Your task to perform on an android device: Open notification settings Image 0: 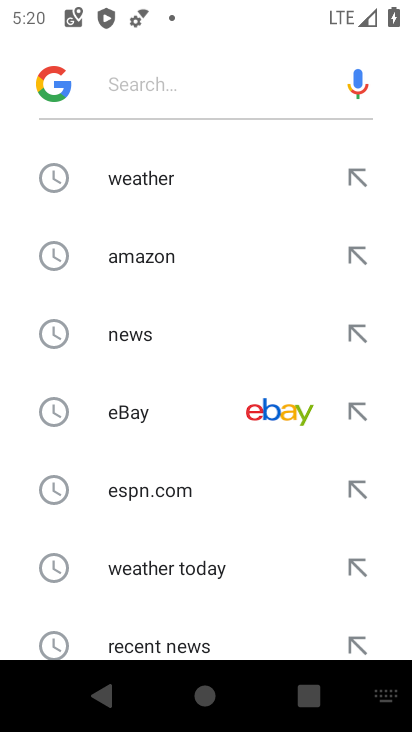
Step 0: press home button
Your task to perform on an android device: Open notification settings Image 1: 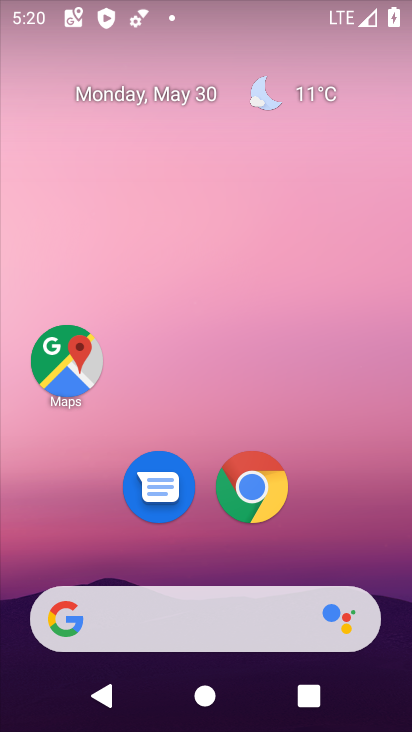
Step 1: drag from (410, 640) to (296, 102)
Your task to perform on an android device: Open notification settings Image 2: 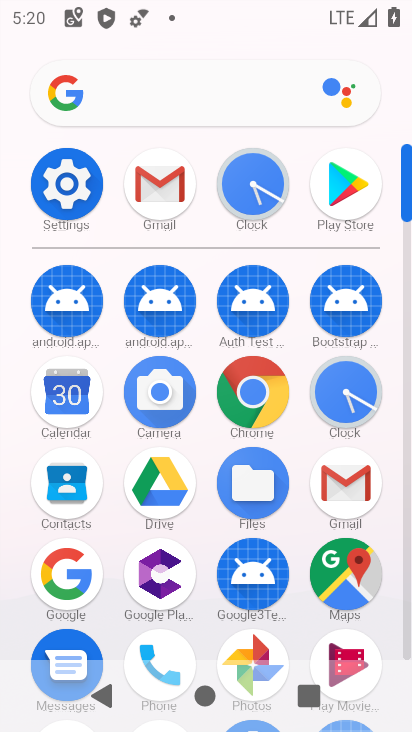
Step 2: click (407, 633)
Your task to perform on an android device: Open notification settings Image 3: 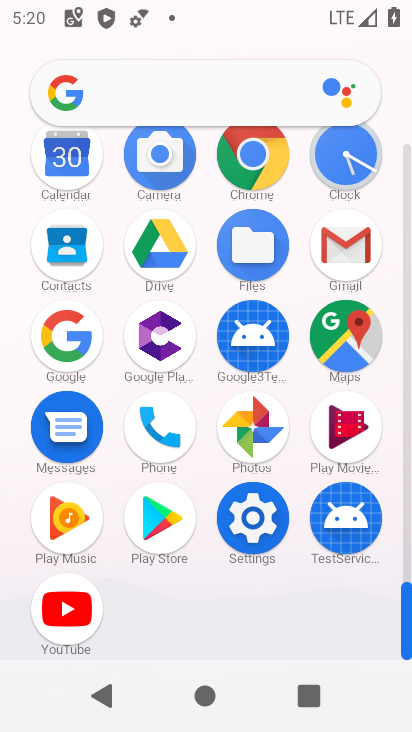
Step 3: click (255, 515)
Your task to perform on an android device: Open notification settings Image 4: 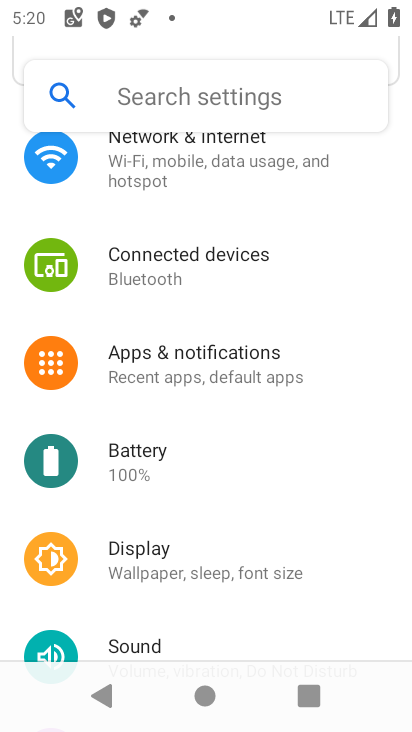
Step 4: click (194, 376)
Your task to perform on an android device: Open notification settings Image 5: 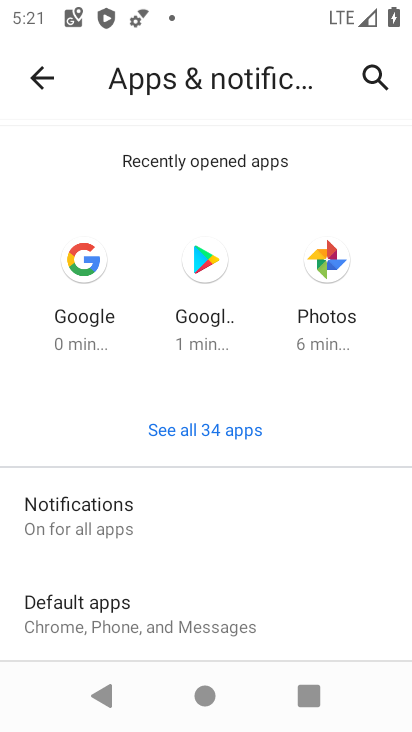
Step 5: drag from (166, 557) to (197, 252)
Your task to perform on an android device: Open notification settings Image 6: 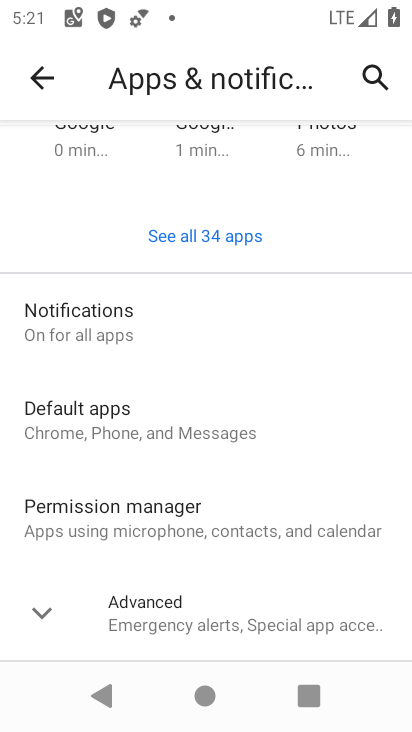
Step 6: click (88, 305)
Your task to perform on an android device: Open notification settings Image 7: 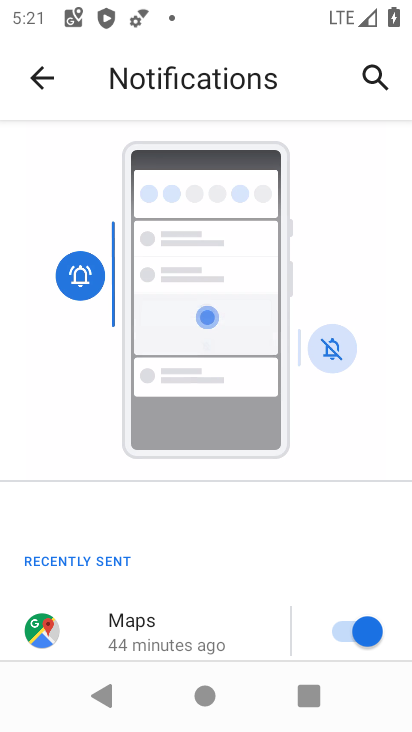
Step 7: task complete